Your task to perform on an android device: empty trash in google photos Image 0: 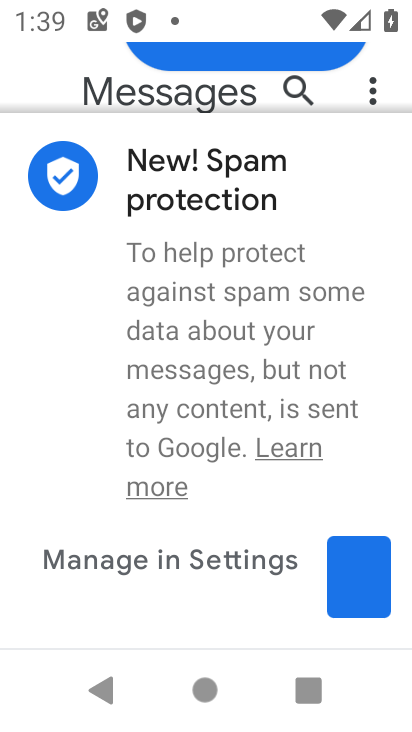
Step 0: press home button
Your task to perform on an android device: empty trash in google photos Image 1: 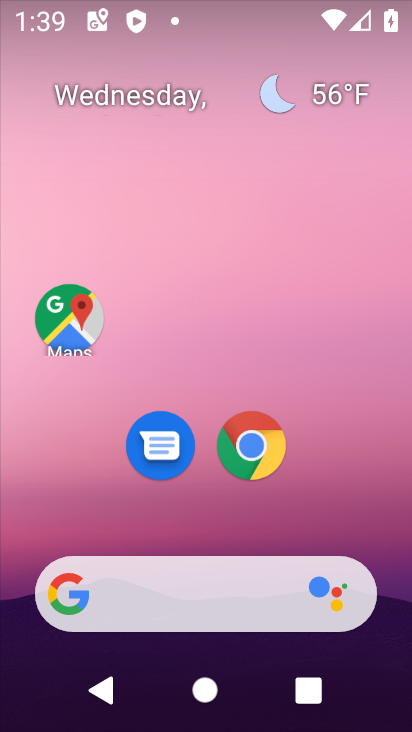
Step 1: drag from (222, 552) to (131, 35)
Your task to perform on an android device: empty trash in google photos Image 2: 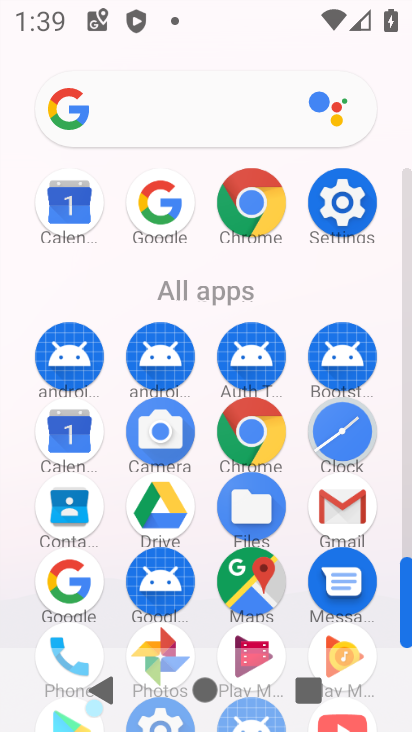
Step 2: click (149, 628)
Your task to perform on an android device: empty trash in google photos Image 3: 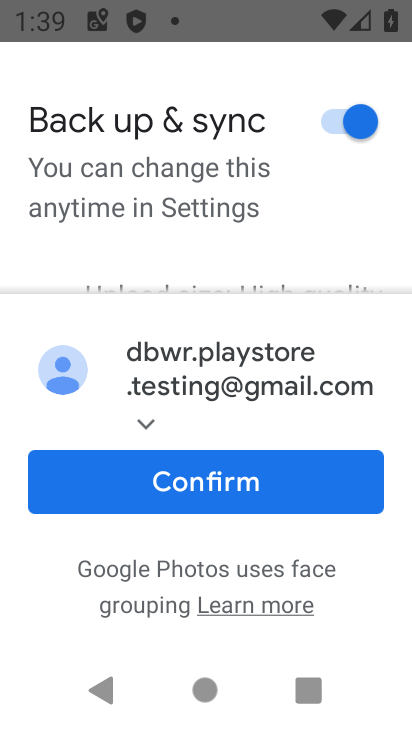
Step 3: click (218, 461)
Your task to perform on an android device: empty trash in google photos Image 4: 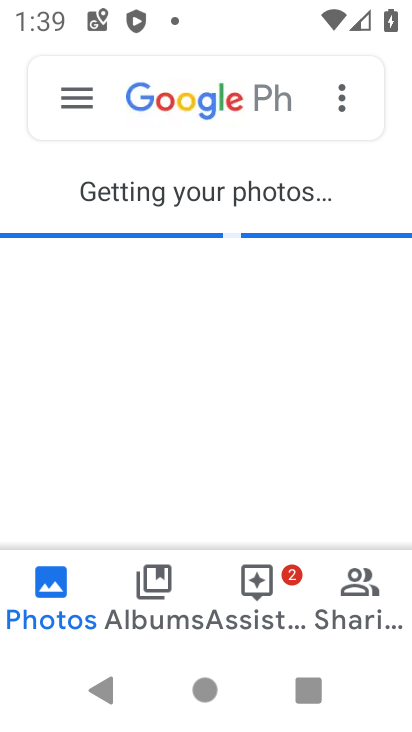
Step 4: click (85, 95)
Your task to perform on an android device: empty trash in google photos Image 5: 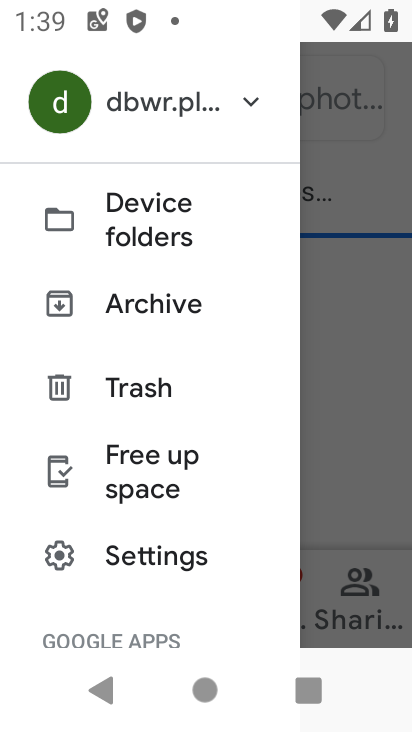
Step 5: click (126, 382)
Your task to perform on an android device: empty trash in google photos Image 6: 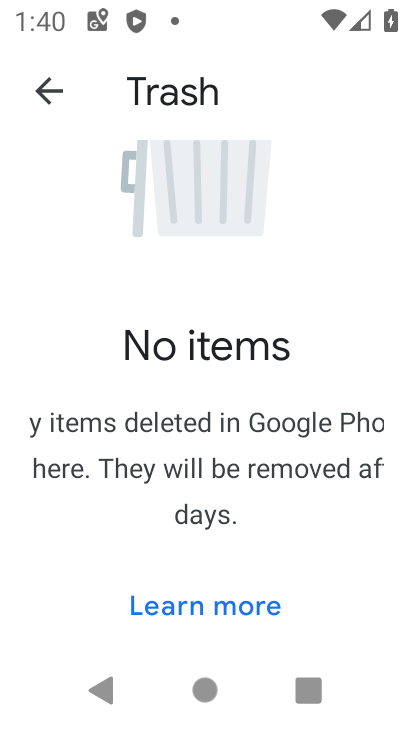
Step 6: task complete